Your task to perform on an android device: open app "Facebook" (install if not already installed), go to login, and select forgot password Image 0: 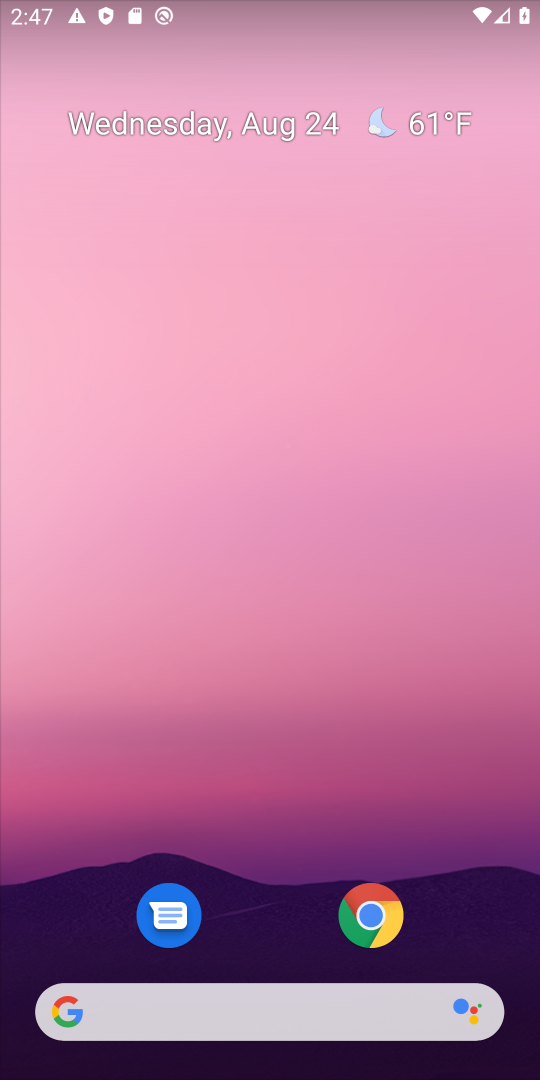
Step 0: drag from (249, 825) to (280, 179)
Your task to perform on an android device: open app "Facebook" (install if not already installed), go to login, and select forgot password Image 1: 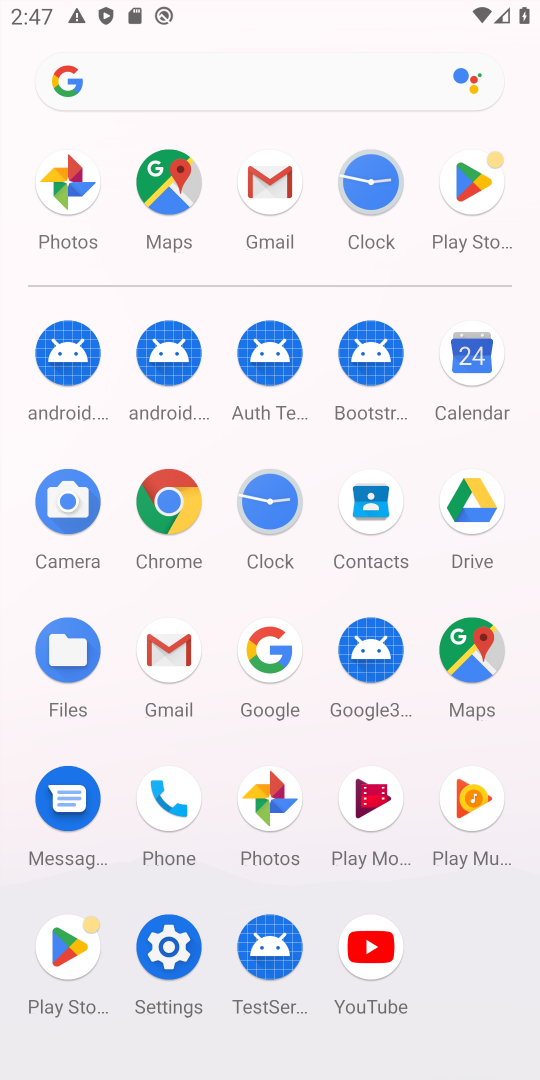
Step 1: click (456, 179)
Your task to perform on an android device: open app "Facebook" (install if not already installed), go to login, and select forgot password Image 2: 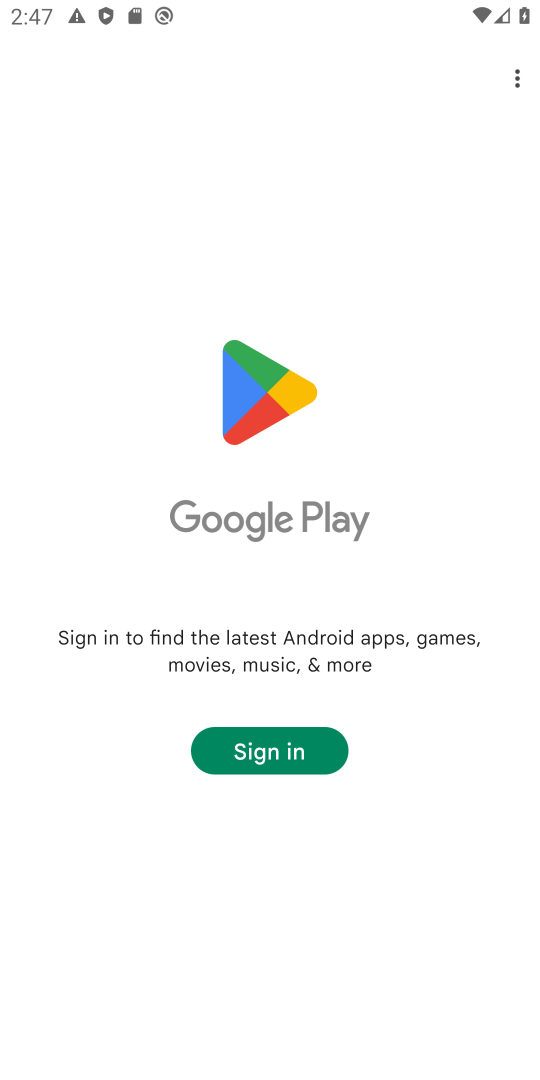
Step 2: task complete